Your task to perform on an android device: open a new tab in the chrome app Image 0: 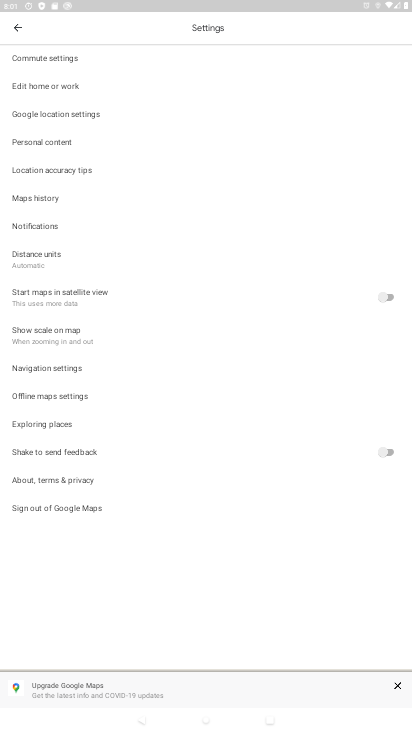
Step 0: press home button
Your task to perform on an android device: open a new tab in the chrome app Image 1: 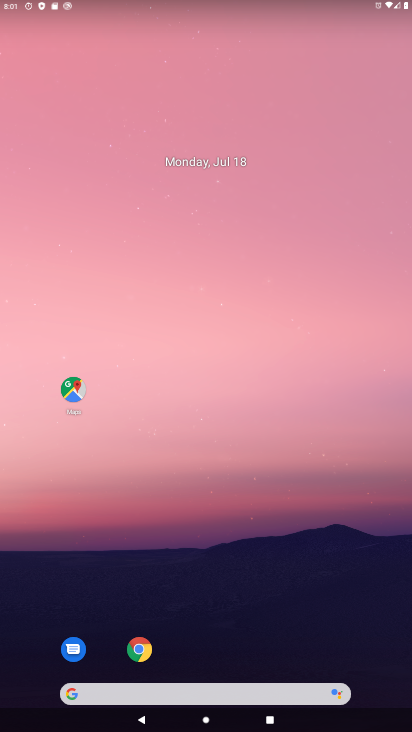
Step 1: drag from (333, 575) to (288, 135)
Your task to perform on an android device: open a new tab in the chrome app Image 2: 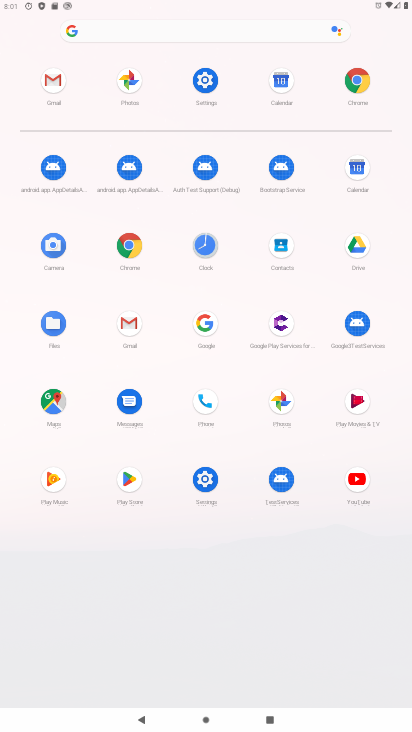
Step 2: click (359, 80)
Your task to perform on an android device: open a new tab in the chrome app Image 3: 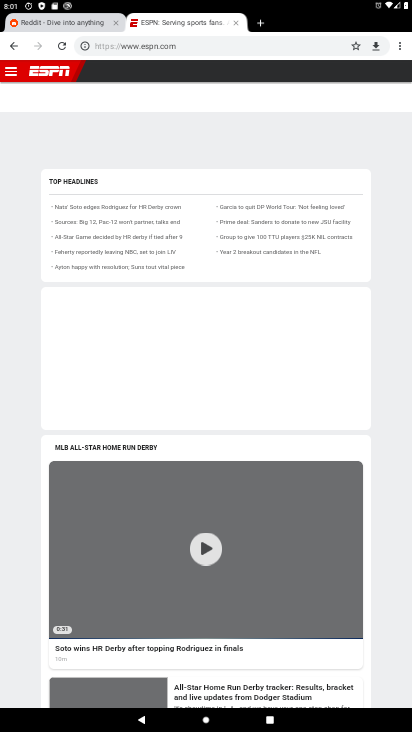
Step 3: task complete